Your task to perform on an android device: empty trash in google photos Image 0: 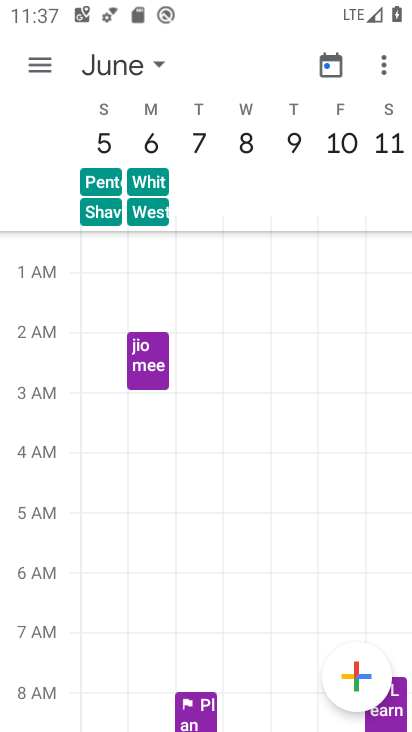
Step 0: press home button
Your task to perform on an android device: empty trash in google photos Image 1: 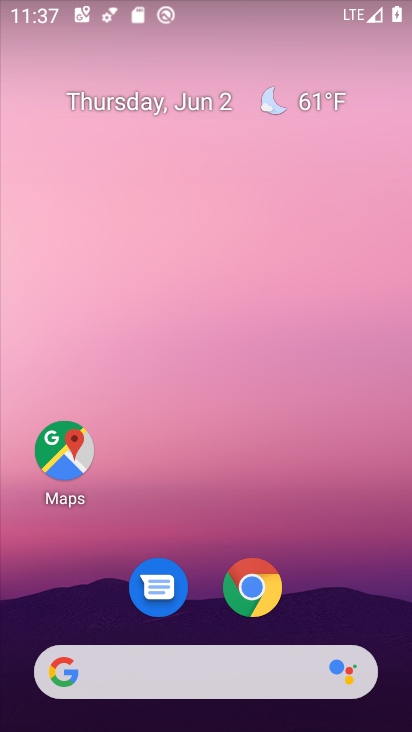
Step 1: drag from (221, 510) to (205, 0)
Your task to perform on an android device: empty trash in google photos Image 2: 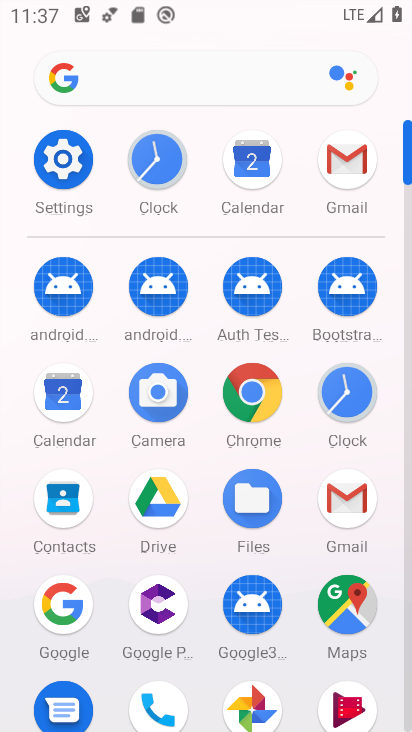
Step 2: click (266, 696)
Your task to perform on an android device: empty trash in google photos Image 3: 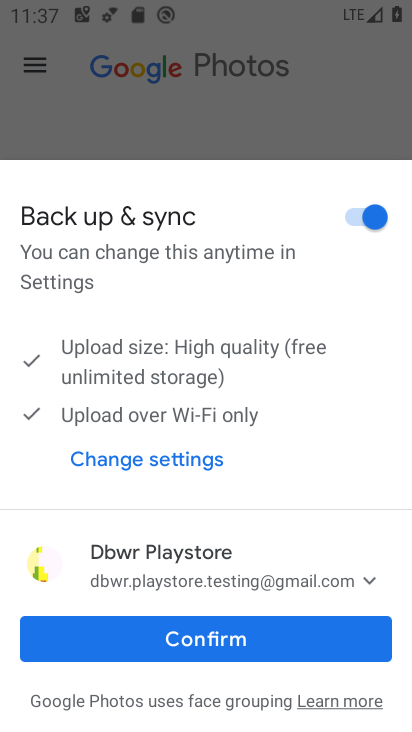
Step 3: click (272, 631)
Your task to perform on an android device: empty trash in google photos Image 4: 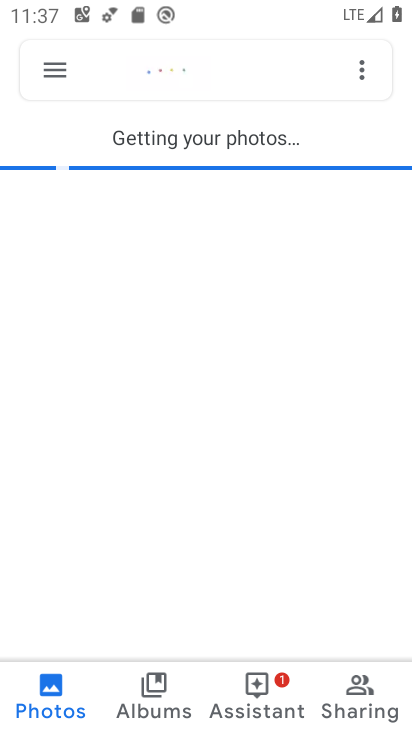
Step 4: click (60, 68)
Your task to perform on an android device: empty trash in google photos Image 5: 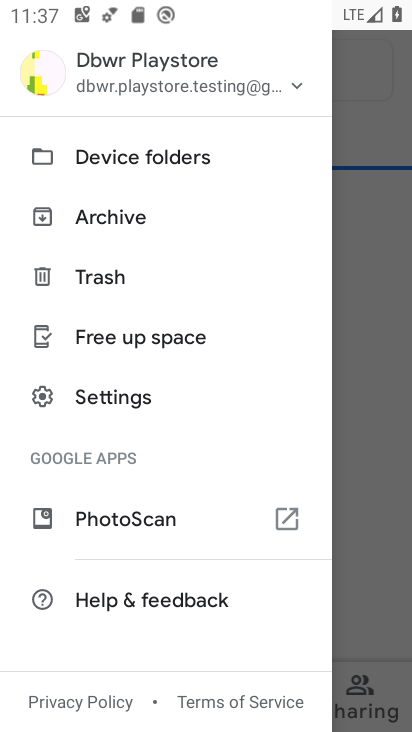
Step 5: click (95, 265)
Your task to perform on an android device: empty trash in google photos Image 6: 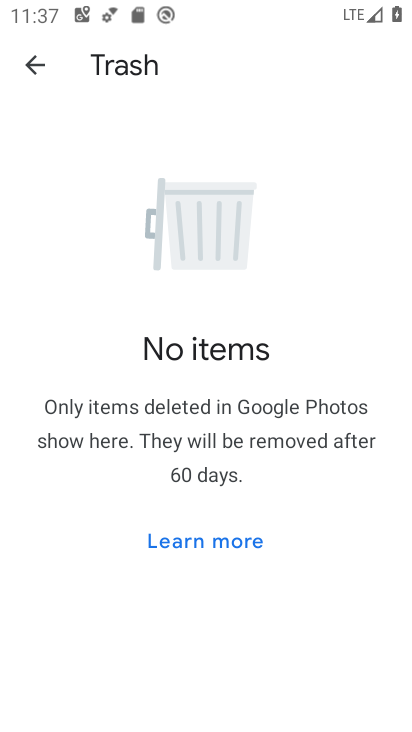
Step 6: task complete